Your task to perform on an android device: clear history in the chrome app Image 0: 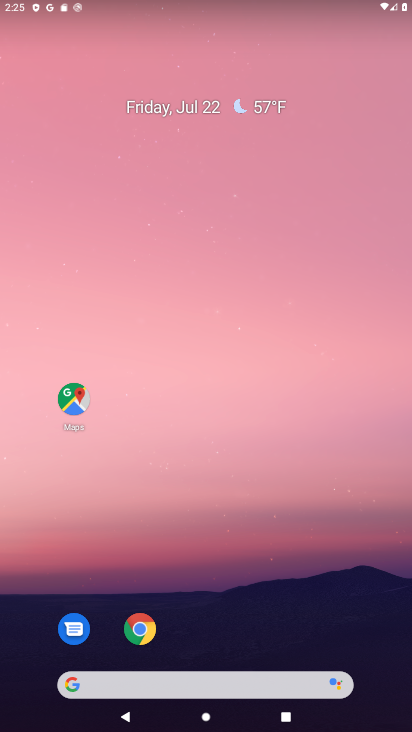
Step 0: click (132, 622)
Your task to perform on an android device: clear history in the chrome app Image 1: 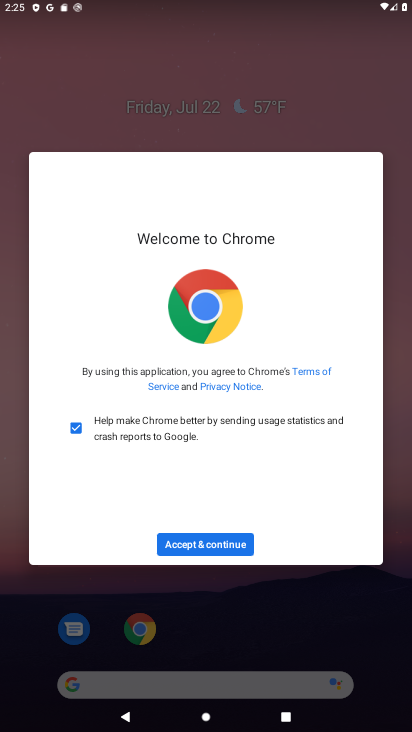
Step 1: click (241, 547)
Your task to perform on an android device: clear history in the chrome app Image 2: 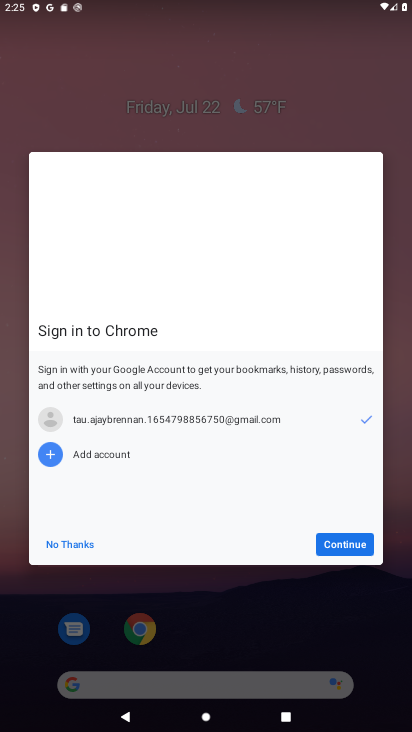
Step 2: click (352, 555)
Your task to perform on an android device: clear history in the chrome app Image 3: 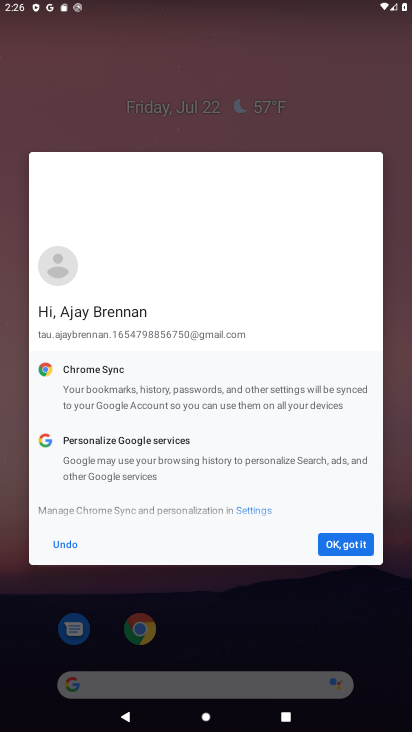
Step 3: click (352, 555)
Your task to perform on an android device: clear history in the chrome app Image 4: 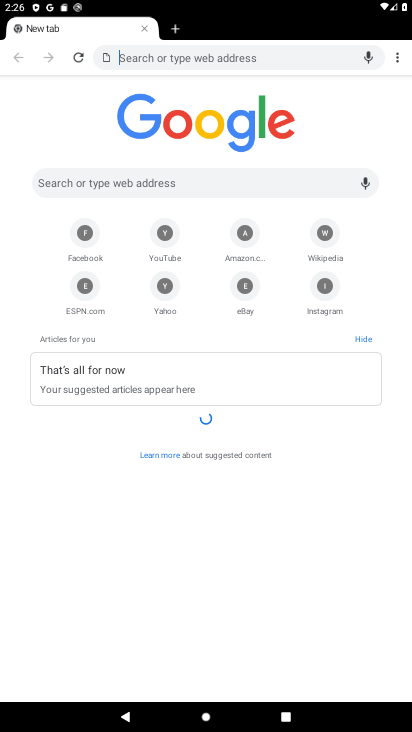
Step 4: click (395, 63)
Your task to perform on an android device: clear history in the chrome app Image 5: 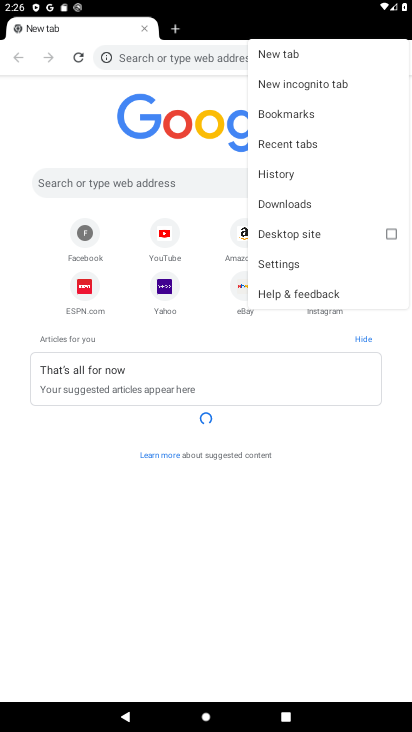
Step 5: click (317, 271)
Your task to perform on an android device: clear history in the chrome app Image 6: 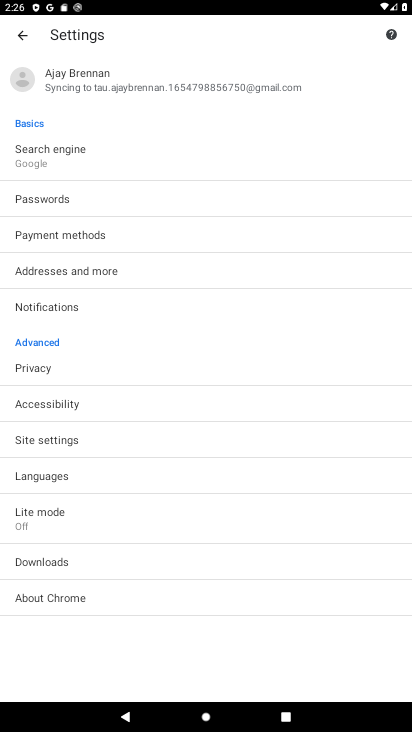
Step 6: click (120, 362)
Your task to perform on an android device: clear history in the chrome app Image 7: 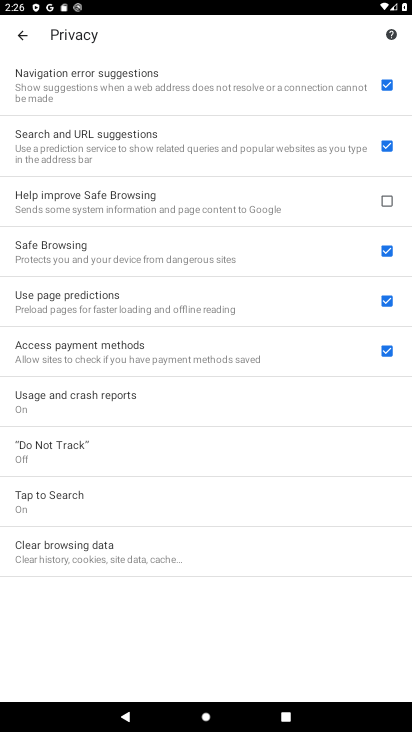
Step 7: click (116, 567)
Your task to perform on an android device: clear history in the chrome app Image 8: 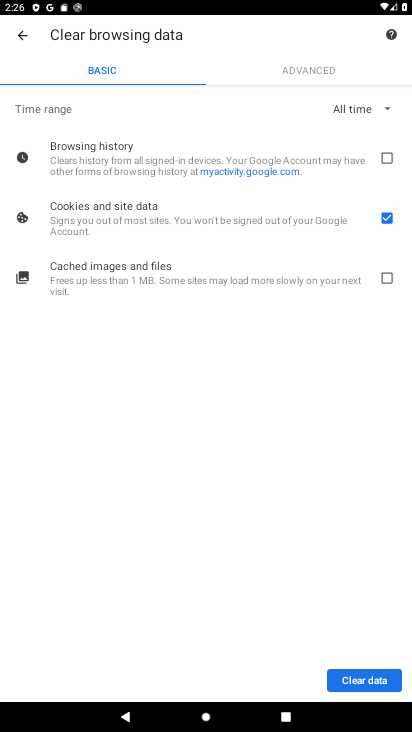
Step 8: click (386, 163)
Your task to perform on an android device: clear history in the chrome app Image 9: 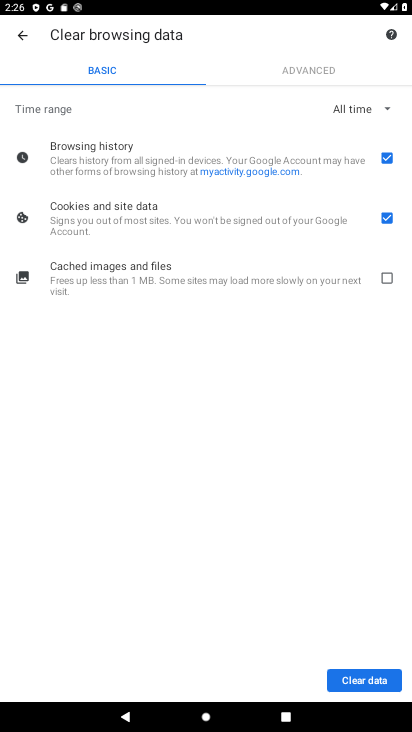
Step 9: click (385, 684)
Your task to perform on an android device: clear history in the chrome app Image 10: 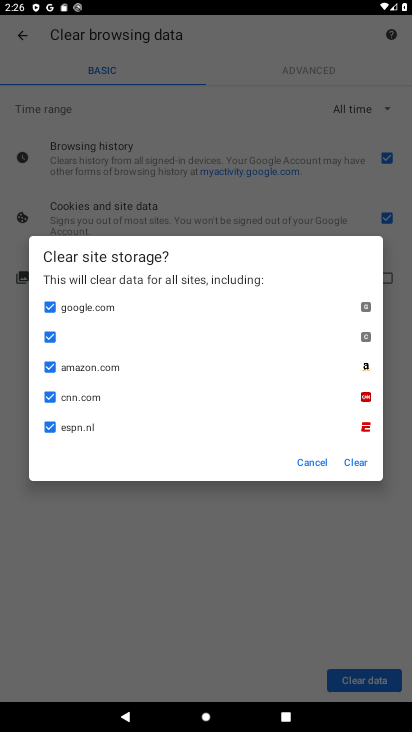
Step 10: click (352, 468)
Your task to perform on an android device: clear history in the chrome app Image 11: 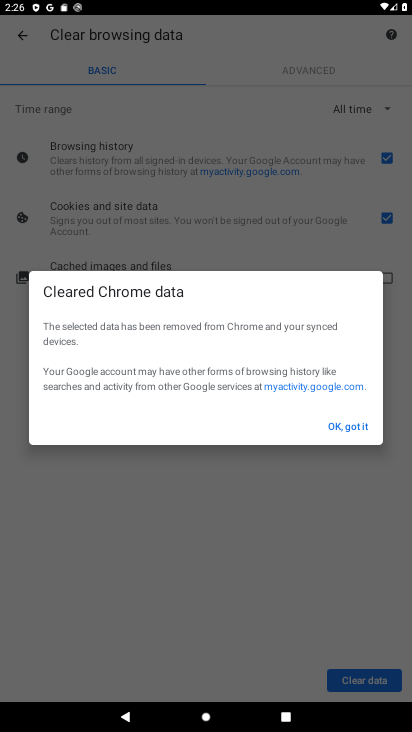
Step 11: click (335, 429)
Your task to perform on an android device: clear history in the chrome app Image 12: 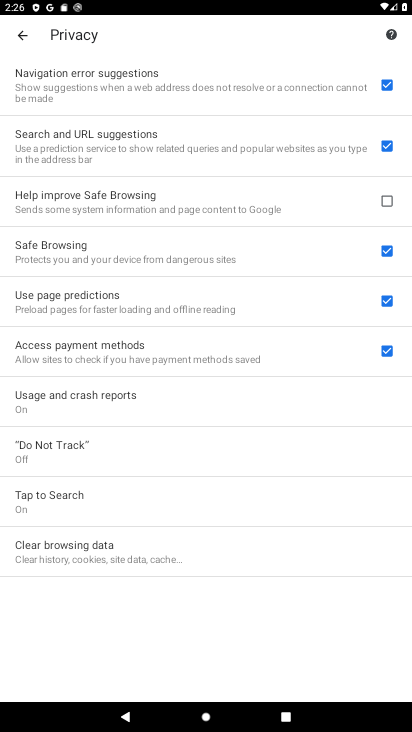
Step 12: task complete